Your task to perform on an android device: create a new album in the google photos Image 0: 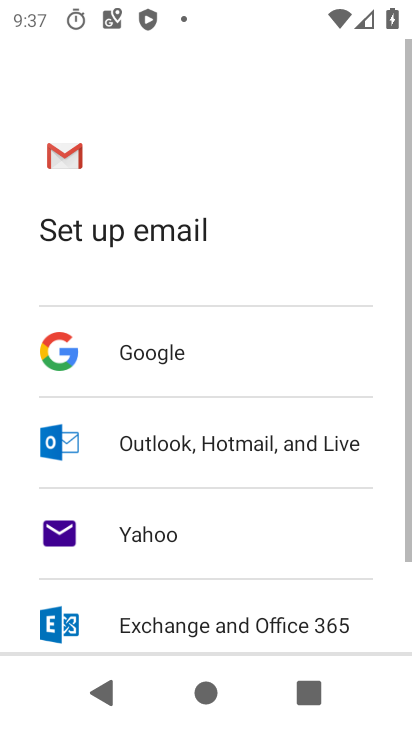
Step 0: press home button
Your task to perform on an android device: create a new album in the google photos Image 1: 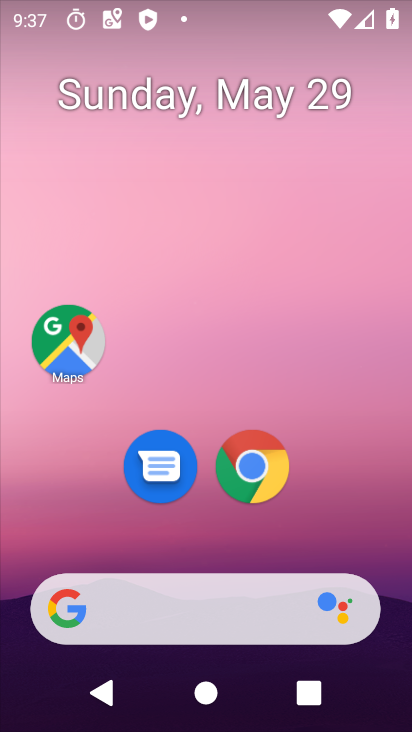
Step 1: drag from (211, 543) to (206, 279)
Your task to perform on an android device: create a new album in the google photos Image 2: 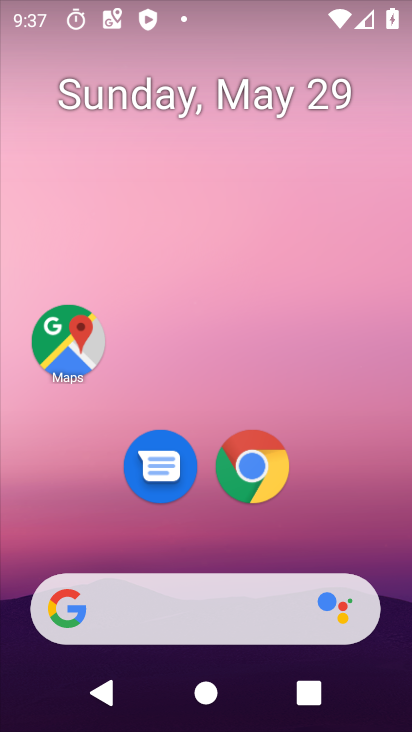
Step 2: drag from (203, 543) to (206, 207)
Your task to perform on an android device: create a new album in the google photos Image 3: 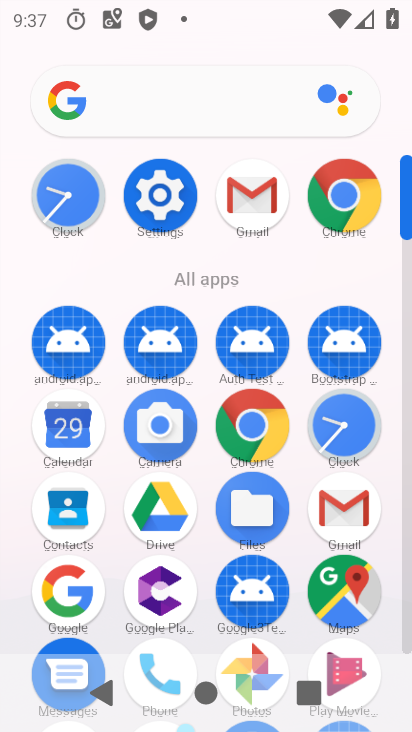
Step 3: drag from (205, 540) to (214, 291)
Your task to perform on an android device: create a new album in the google photos Image 4: 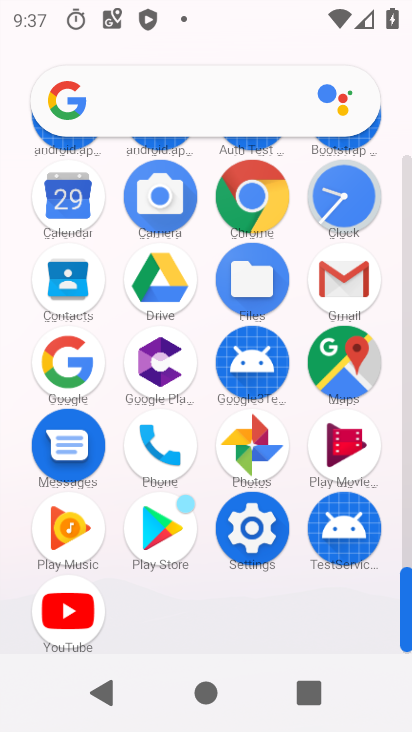
Step 4: click (253, 454)
Your task to perform on an android device: create a new album in the google photos Image 5: 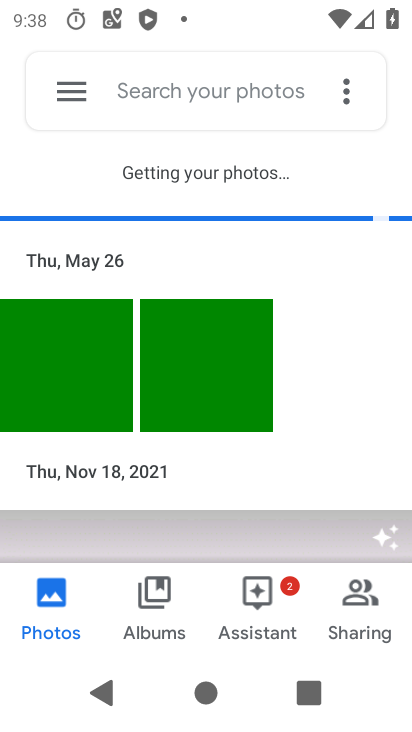
Step 5: click (340, 82)
Your task to perform on an android device: create a new album in the google photos Image 6: 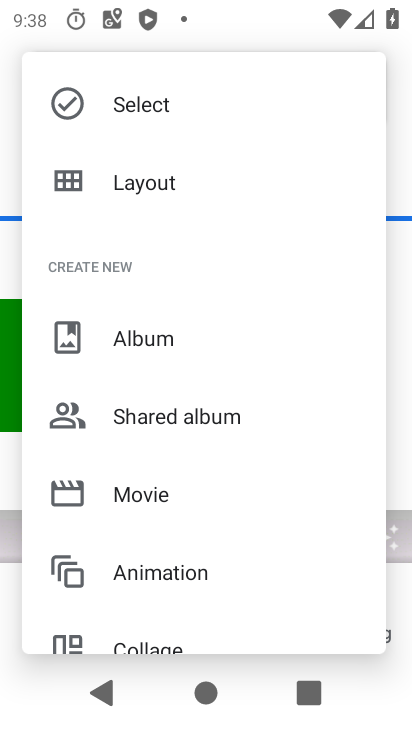
Step 6: click (169, 324)
Your task to perform on an android device: create a new album in the google photos Image 7: 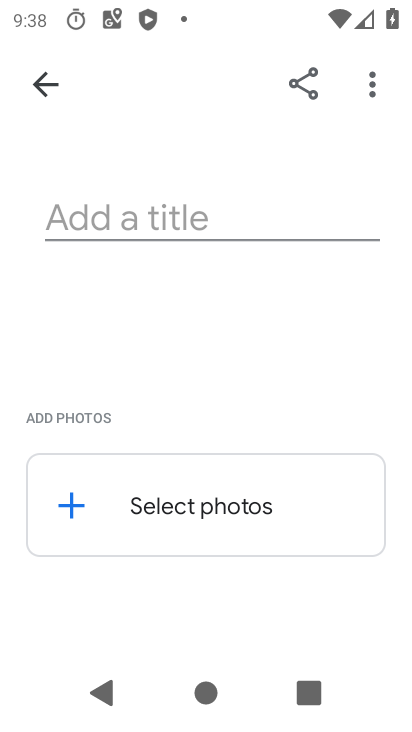
Step 7: click (178, 226)
Your task to perform on an android device: create a new album in the google photos Image 8: 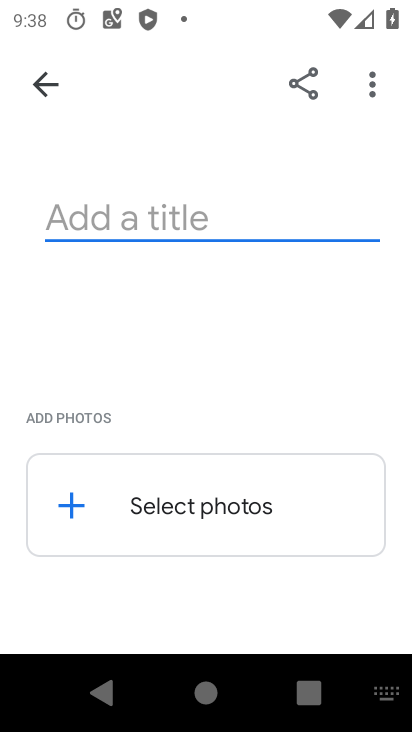
Step 8: type " c c "
Your task to perform on an android device: create a new album in the google photos Image 9: 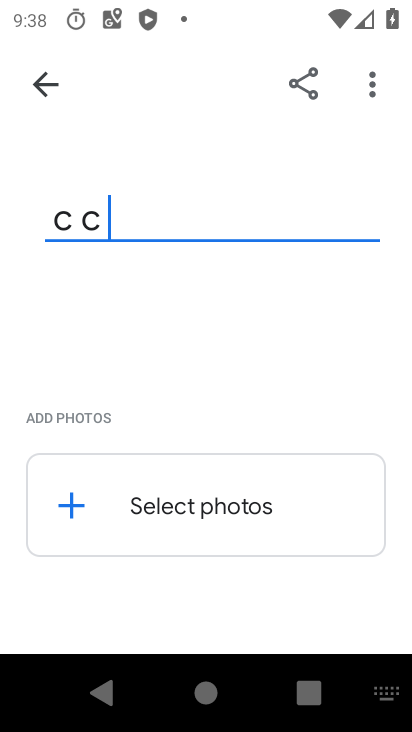
Step 9: click (75, 499)
Your task to perform on an android device: create a new album in the google photos Image 10: 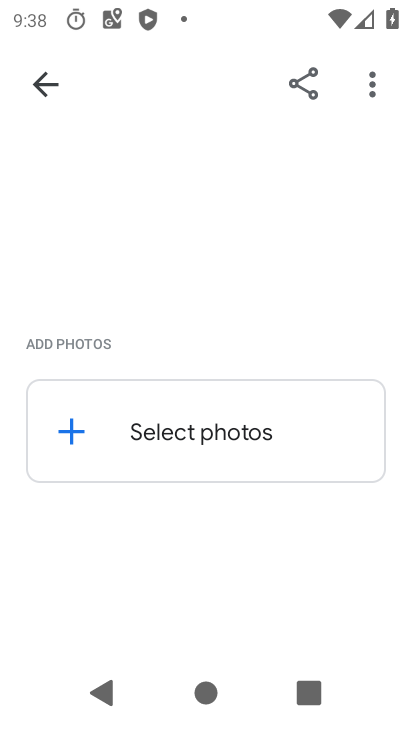
Step 10: click (59, 420)
Your task to perform on an android device: create a new album in the google photos Image 11: 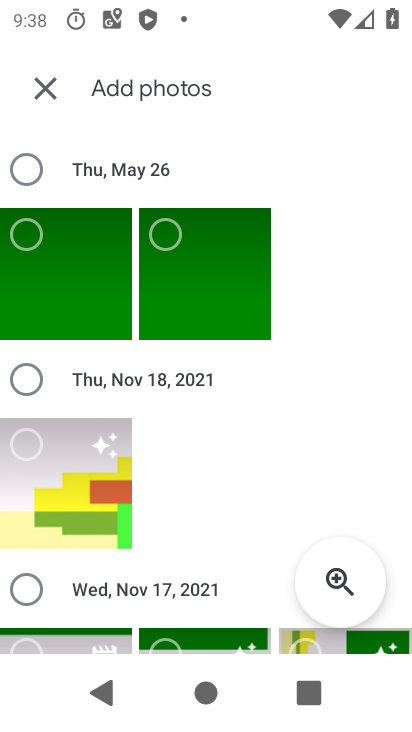
Step 11: click (28, 460)
Your task to perform on an android device: create a new album in the google photos Image 12: 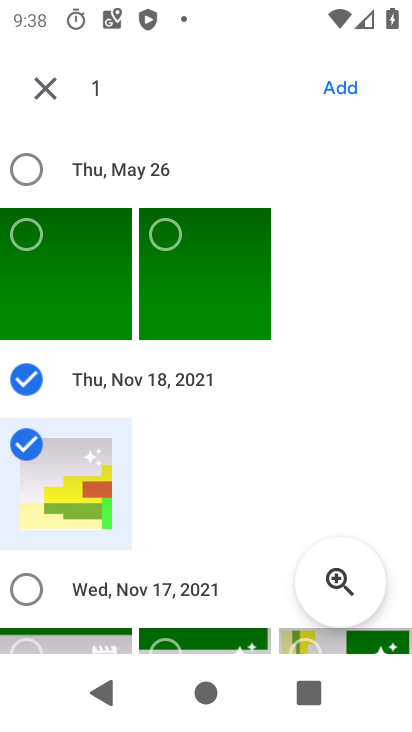
Step 12: click (335, 88)
Your task to perform on an android device: create a new album in the google photos Image 13: 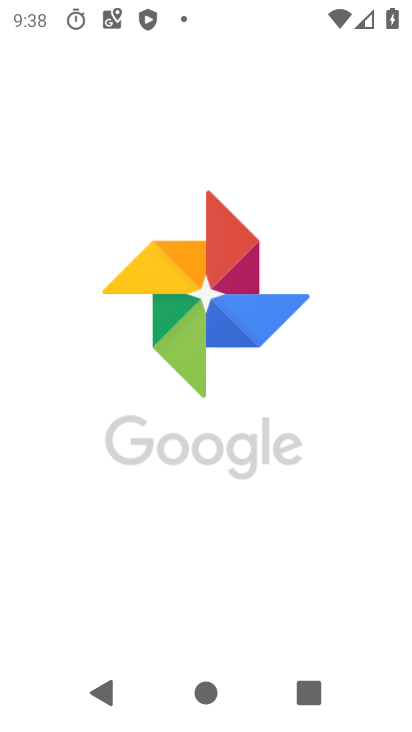
Step 13: task complete